Your task to perform on an android device: Do I have any events today? Image 0: 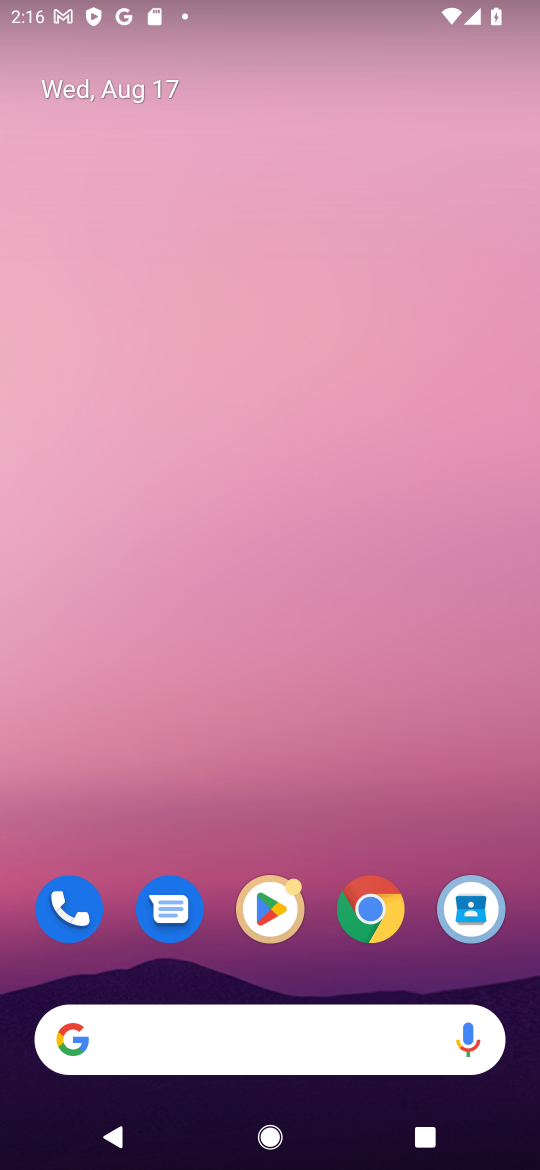
Step 0: drag from (373, 655) to (337, 49)
Your task to perform on an android device: Do I have any events today? Image 1: 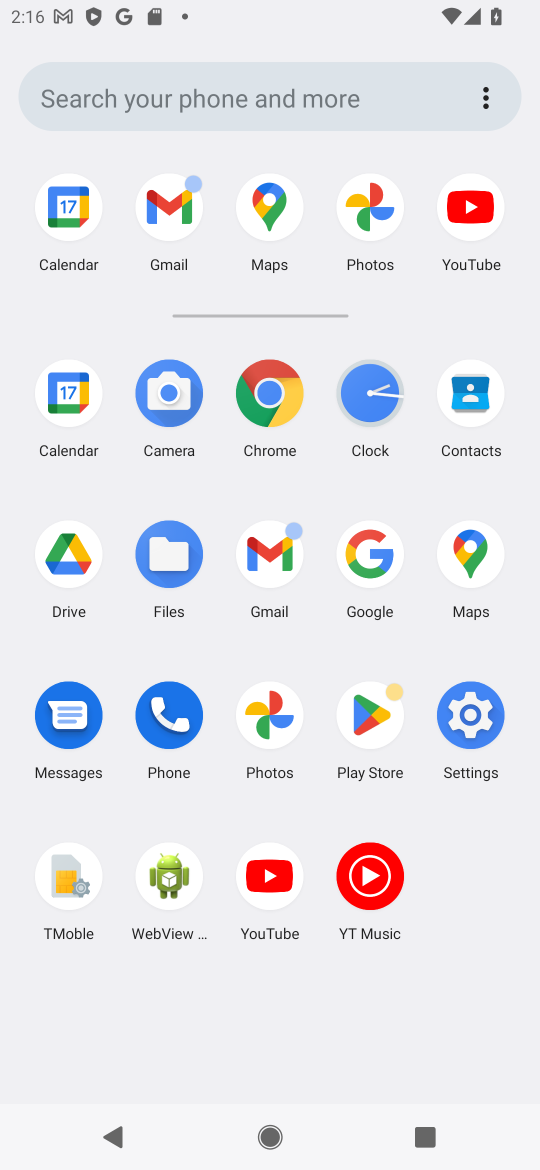
Step 1: task complete